Your task to perform on an android device: change the upload size in google photos Image 0: 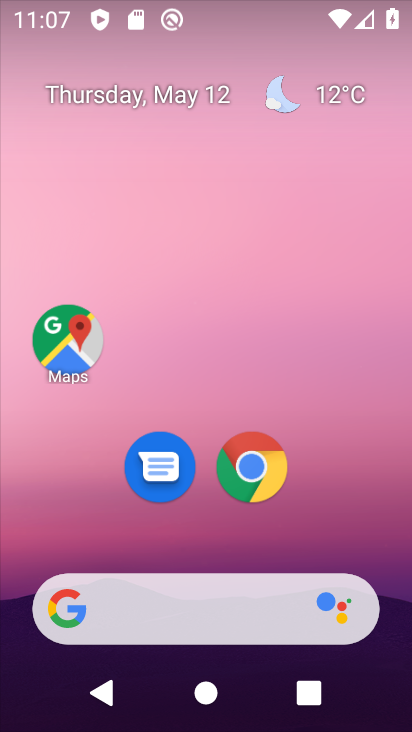
Step 0: drag from (342, 536) to (258, 32)
Your task to perform on an android device: change the upload size in google photos Image 1: 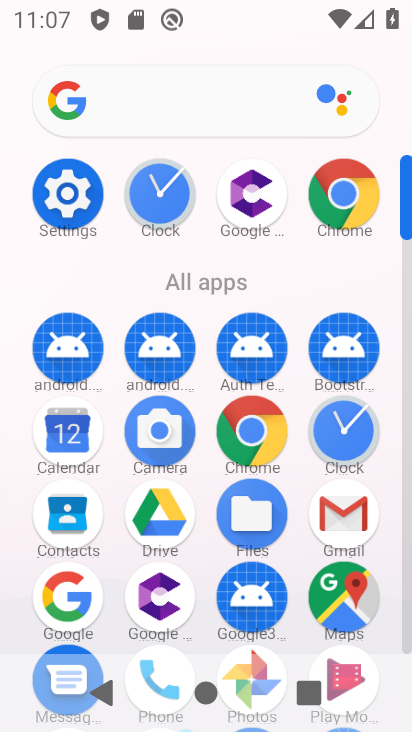
Step 1: drag from (13, 570) to (26, 254)
Your task to perform on an android device: change the upload size in google photos Image 2: 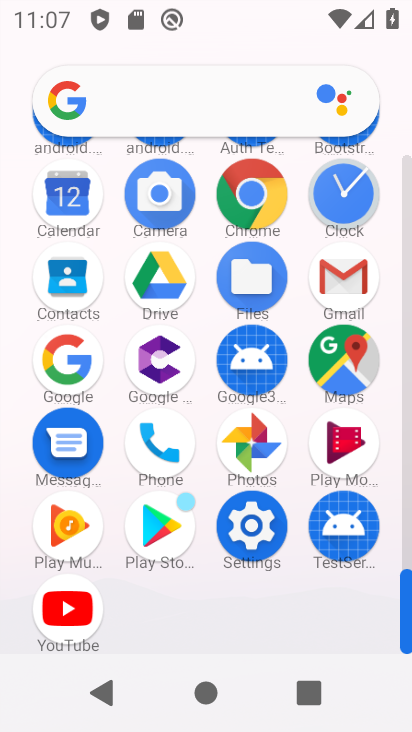
Step 2: click (255, 445)
Your task to perform on an android device: change the upload size in google photos Image 3: 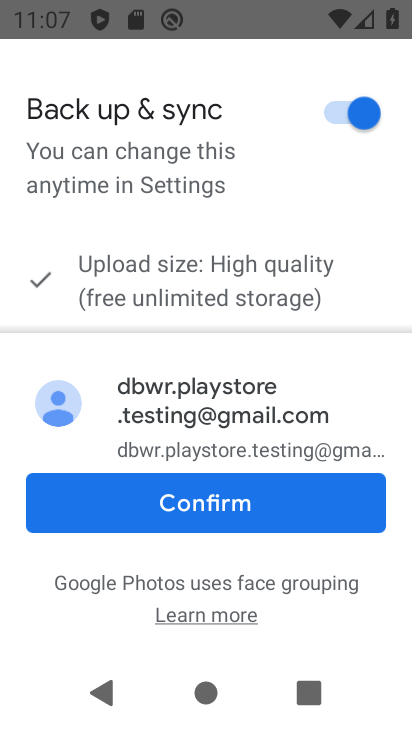
Step 3: click (227, 497)
Your task to perform on an android device: change the upload size in google photos Image 4: 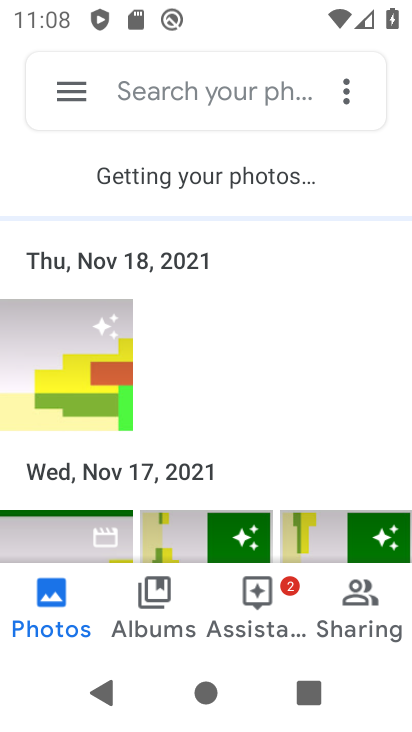
Step 4: click (62, 79)
Your task to perform on an android device: change the upload size in google photos Image 5: 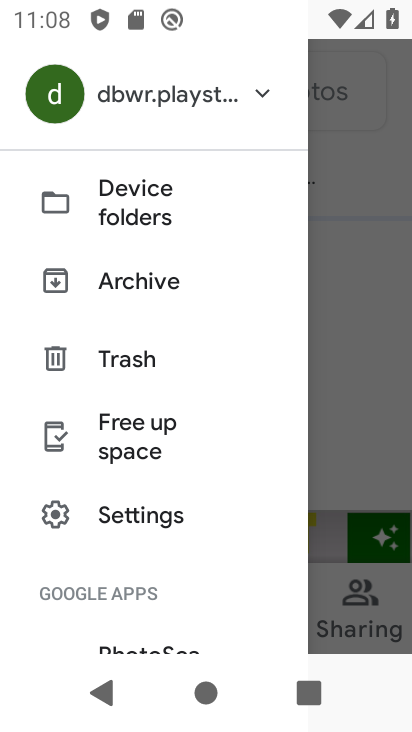
Step 5: click (160, 511)
Your task to perform on an android device: change the upload size in google photos Image 6: 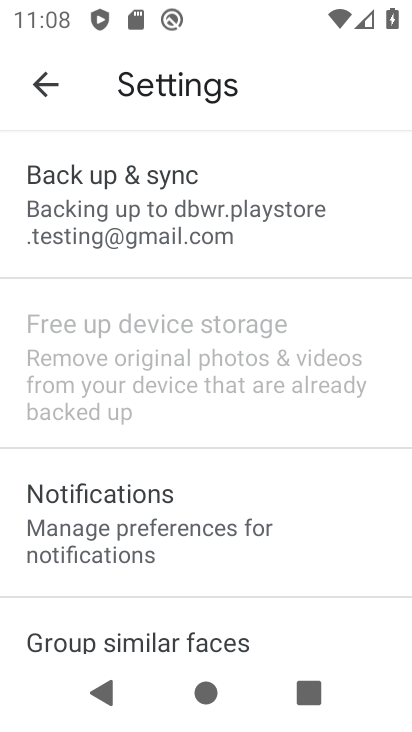
Step 6: drag from (221, 522) to (272, 206)
Your task to perform on an android device: change the upload size in google photos Image 7: 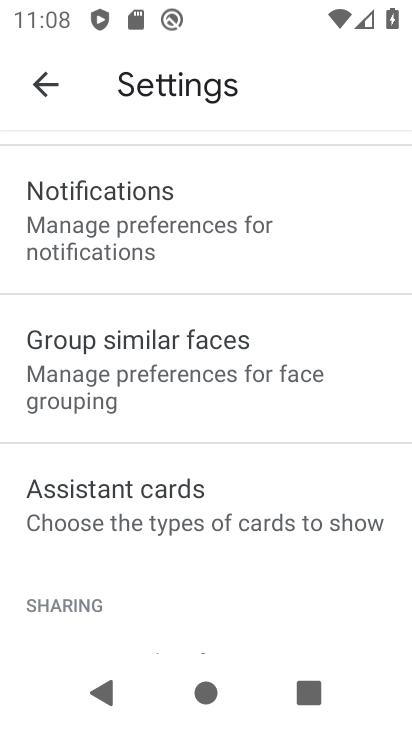
Step 7: drag from (162, 536) to (201, 181)
Your task to perform on an android device: change the upload size in google photos Image 8: 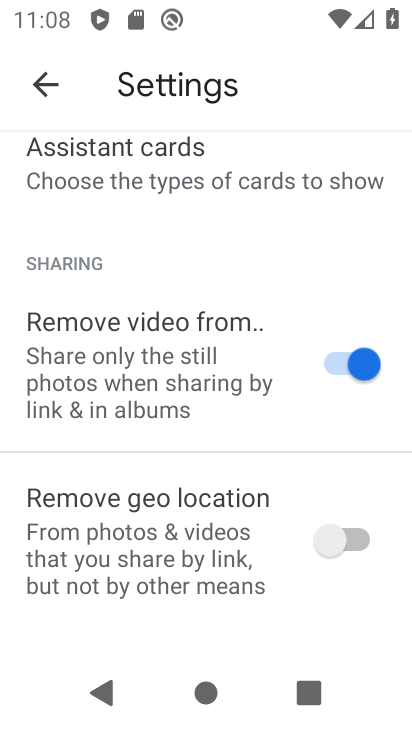
Step 8: drag from (188, 609) to (233, 244)
Your task to perform on an android device: change the upload size in google photos Image 9: 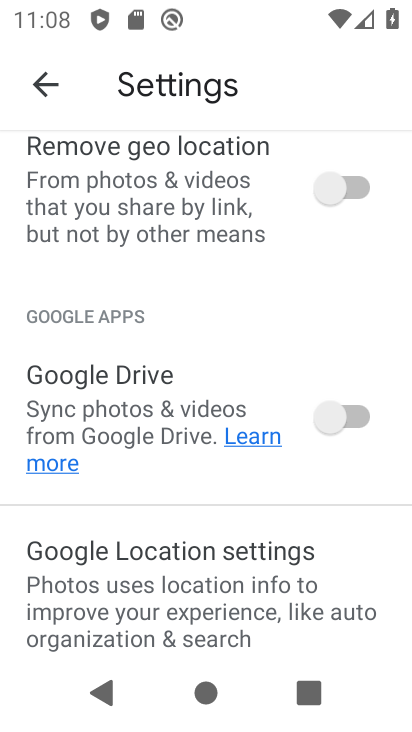
Step 9: drag from (238, 226) to (233, 550)
Your task to perform on an android device: change the upload size in google photos Image 10: 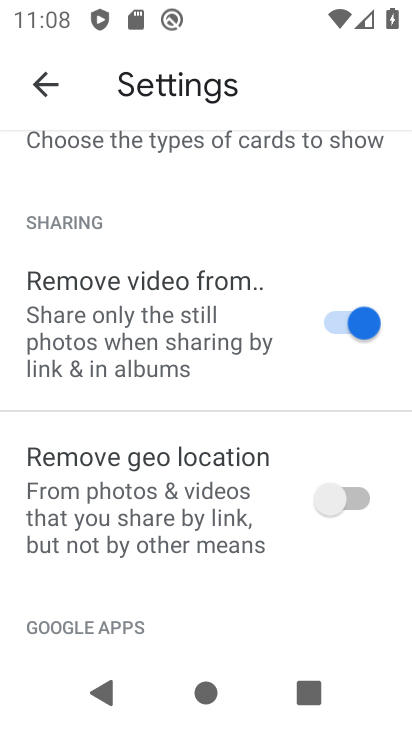
Step 10: drag from (223, 244) to (166, 577)
Your task to perform on an android device: change the upload size in google photos Image 11: 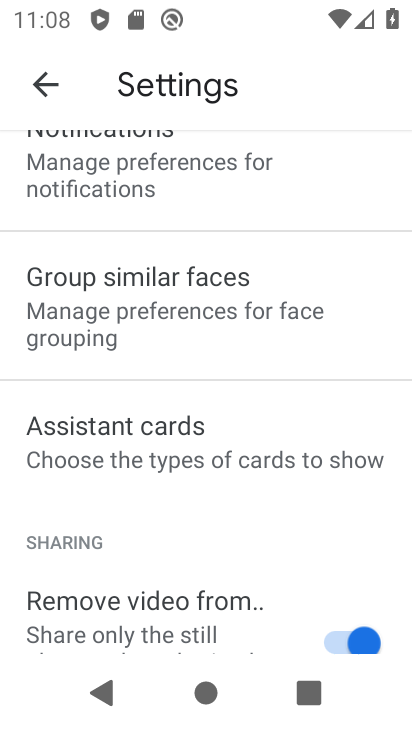
Step 11: drag from (191, 304) to (166, 594)
Your task to perform on an android device: change the upload size in google photos Image 12: 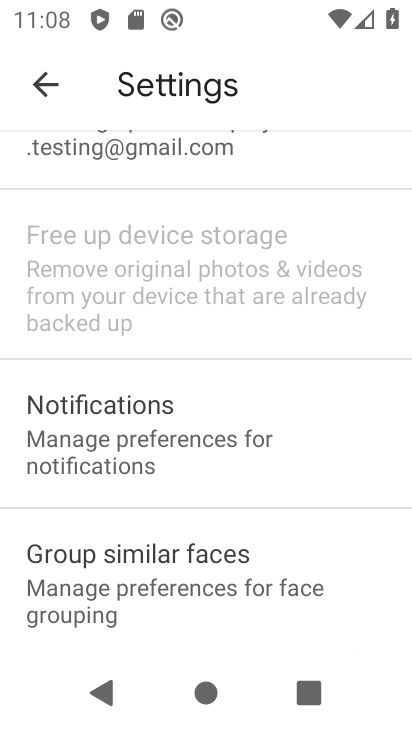
Step 12: drag from (187, 250) to (183, 529)
Your task to perform on an android device: change the upload size in google photos Image 13: 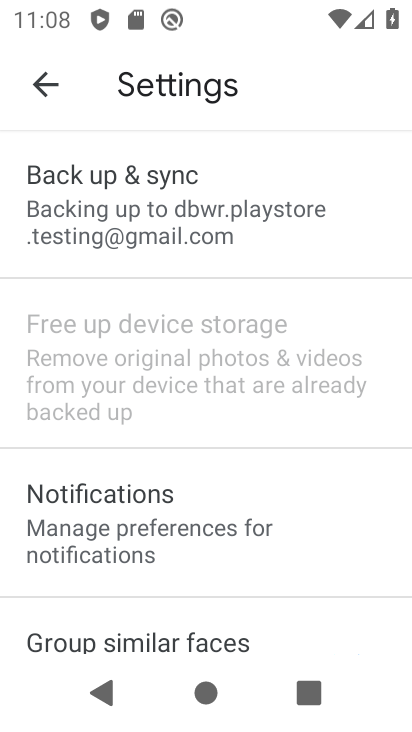
Step 13: click (194, 211)
Your task to perform on an android device: change the upload size in google photos Image 14: 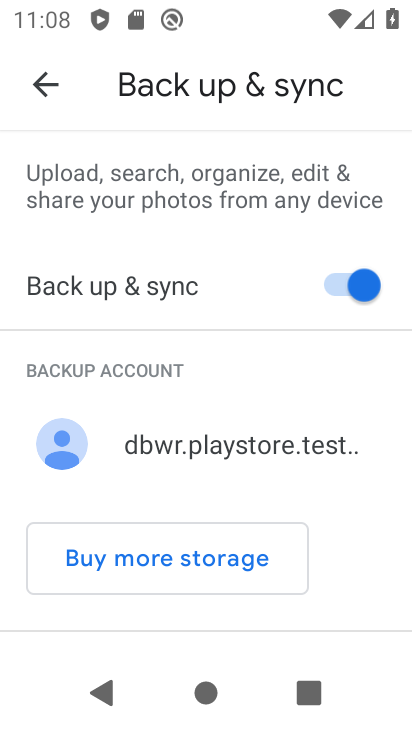
Step 14: drag from (195, 590) to (228, 238)
Your task to perform on an android device: change the upload size in google photos Image 15: 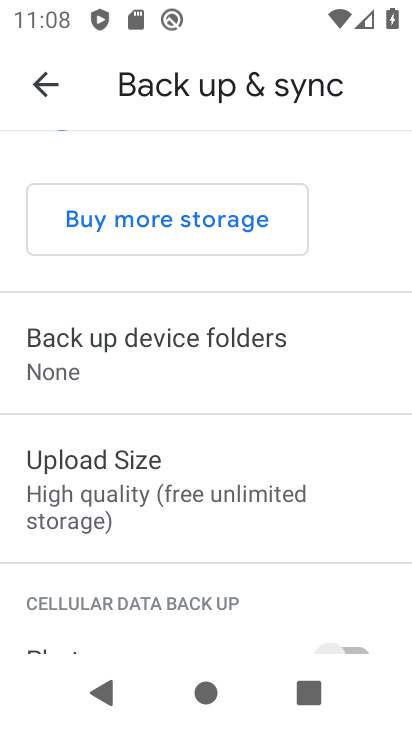
Step 15: click (188, 529)
Your task to perform on an android device: change the upload size in google photos Image 16: 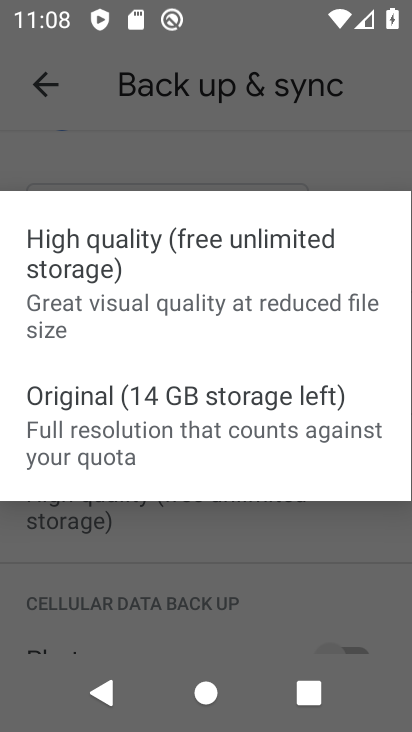
Step 16: click (176, 374)
Your task to perform on an android device: change the upload size in google photos Image 17: 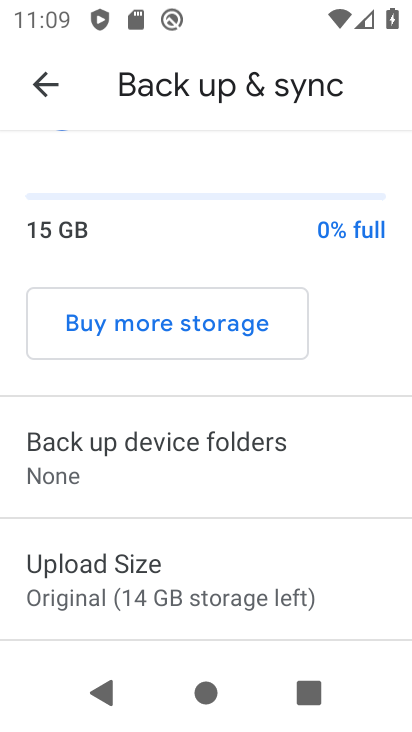
Step 17: task complete